Your task to perform on an android device: Is it going to rain today? Image 0: 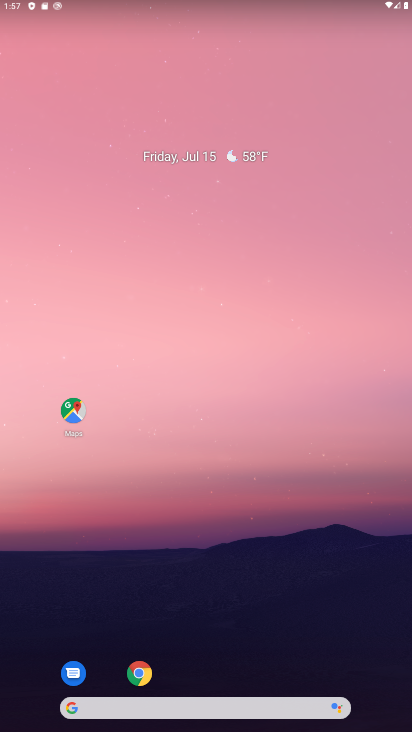
Step 0: drag from (9, 165) to (409, 195)
Your task to perform on an android device: Is it going to rain today? Image 1: 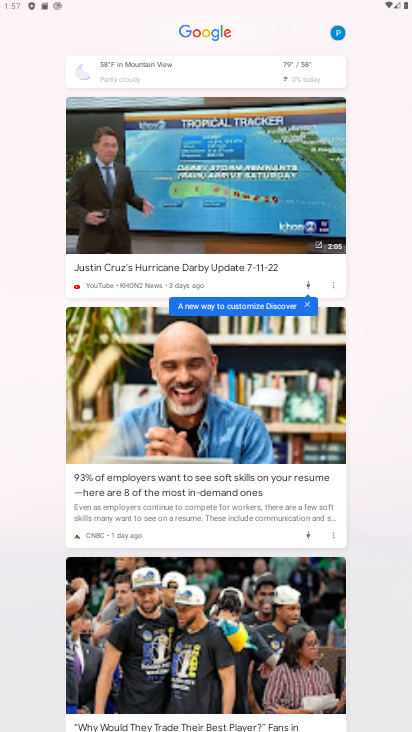
Step 1: click (296, 65)
Your task to perform on an android device: Is it going to rain today? Image 2: 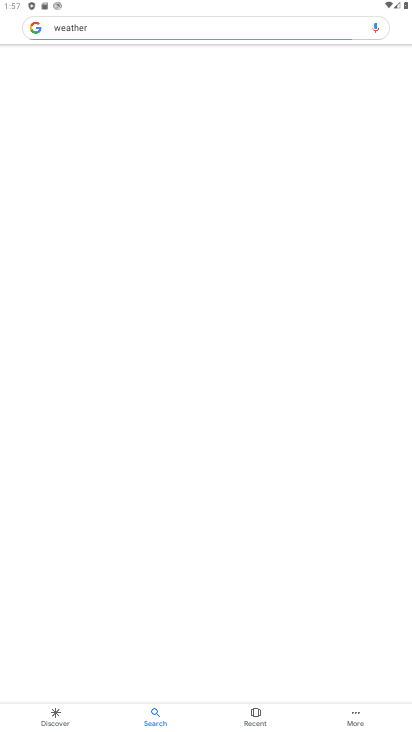
Step 2: task complete